Your task to perform on an android device: turn off picture-in-picture Image 0: 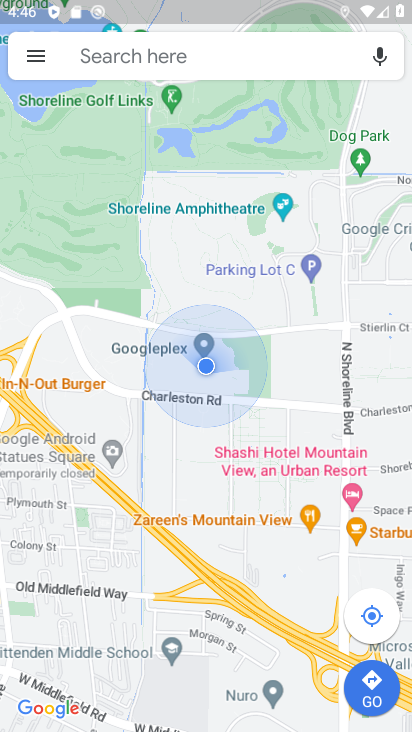
Step 0: press home button
Your task to perform on an android device: turn off picture-in-picture Image 1: 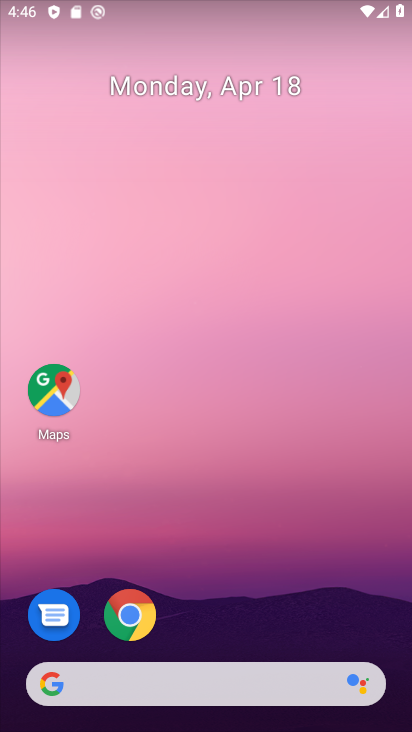
Step 1: click (211, 648)
Your task to perform on an android device: turn off picture-in-picture Image 2: 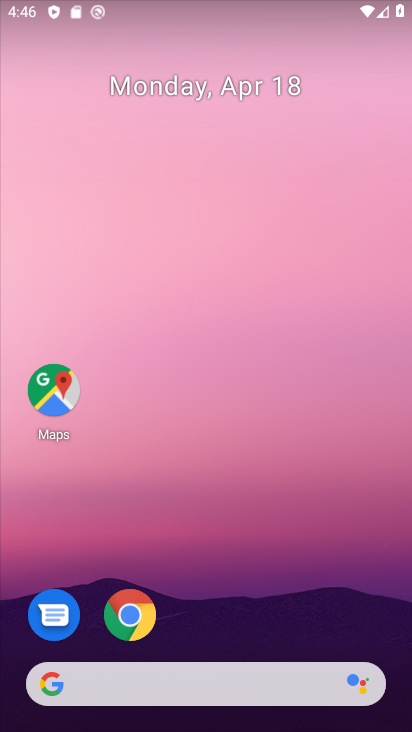
Step 2: click (148, 615)
Your task to perform on an android device: turn off picture-in-picture Image 3: 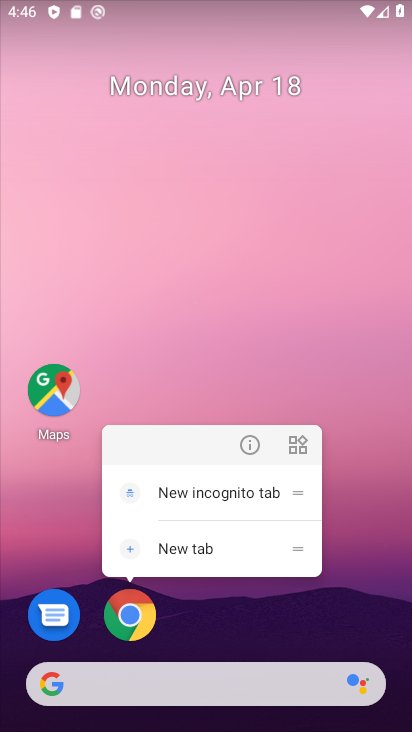
Step 3: click (249, 432)
Your task to perform on an android device: turn off picture-in-picture Image 4: 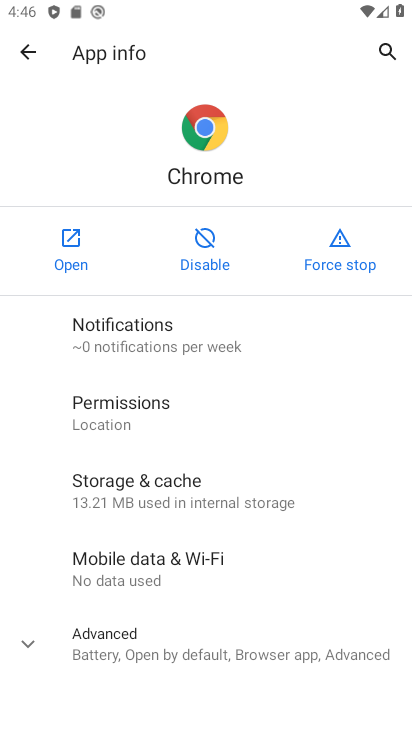
Step 4: drag from (337, 602) to (347, 354)
Your task to perform on an android device: turn off picture-in-picture Image 5: 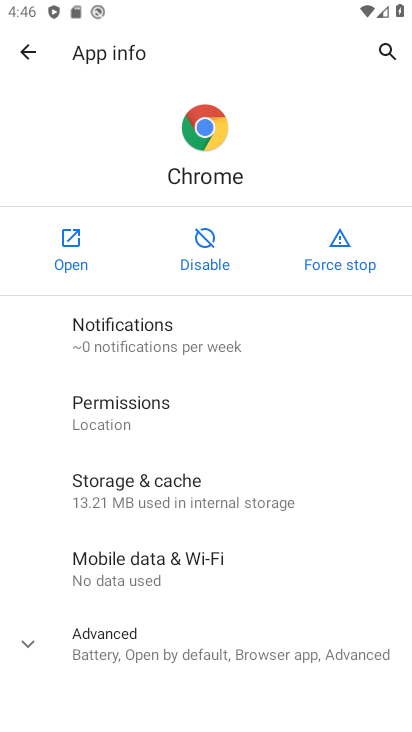
Step 5: click (98, 644)
Your task to perform on an android device: turn off picture-in-picture Image 6: 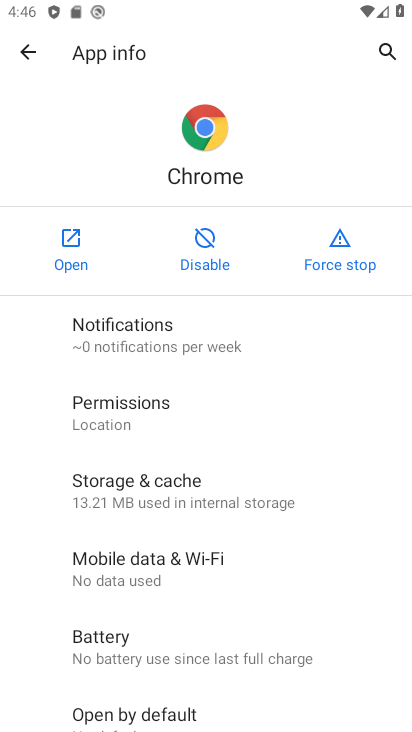
Step 6: drag from (334, 651) to (305, 374)
Your task to perform on an android device: turn off picture-in-picture Image 7: 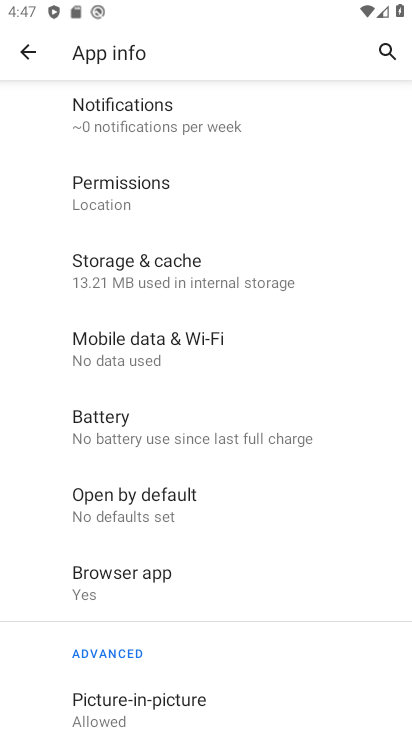
Step 7: drag from (322, 648) to (318, 449)
Your task to perform on an android device: turn off picture-in-picture Image 8: 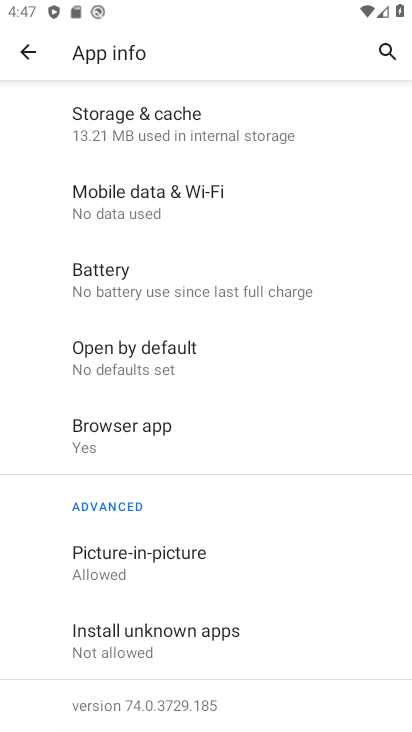
Step 8: click (122, 561)
Your task to perform on an android device: turn off picture-in-picture Image 9: 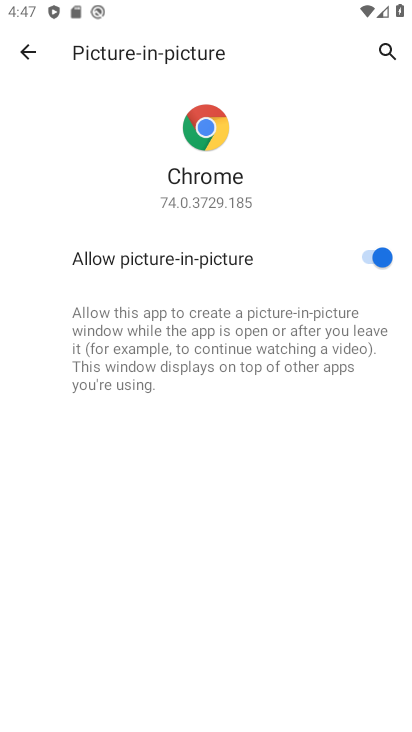
Step 9: click (373, 255)
Your task to perform on an android device: turn off picture-in-picture Image 10: 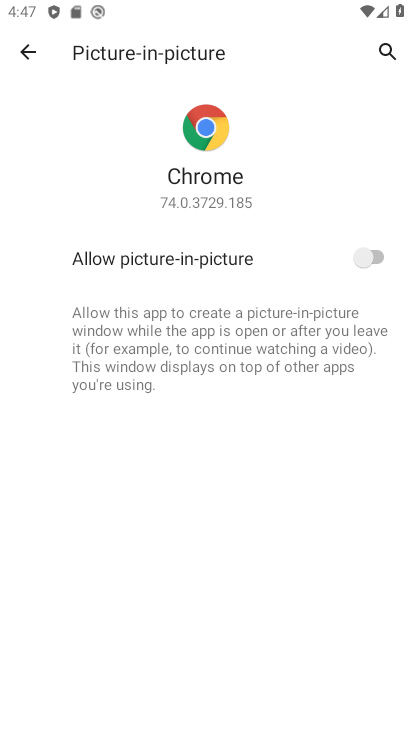
Step 10: task complete